Your task to perform on an android device: Do I have any events today? Image 0: 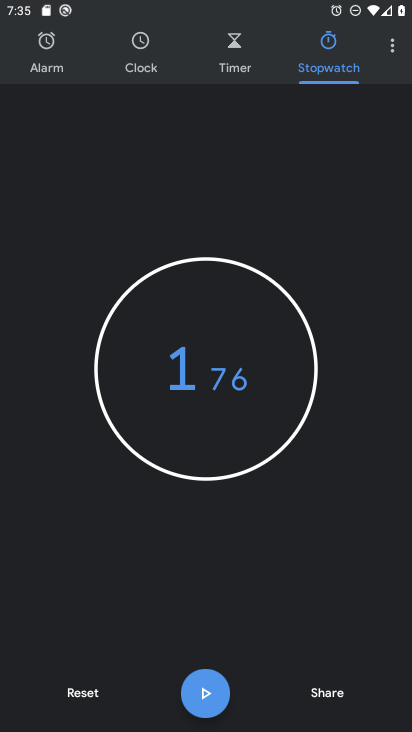
Step 0: press home button
Your task to perform on an android device: Do I have any events today? Image 1: 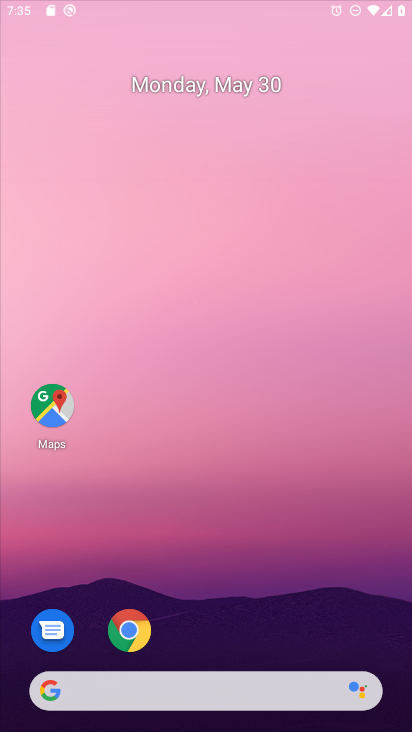
Step 1: drag from (374, 562) to (325, 8)
Your task to perform on an android device: Do I have any events today? Image 2: 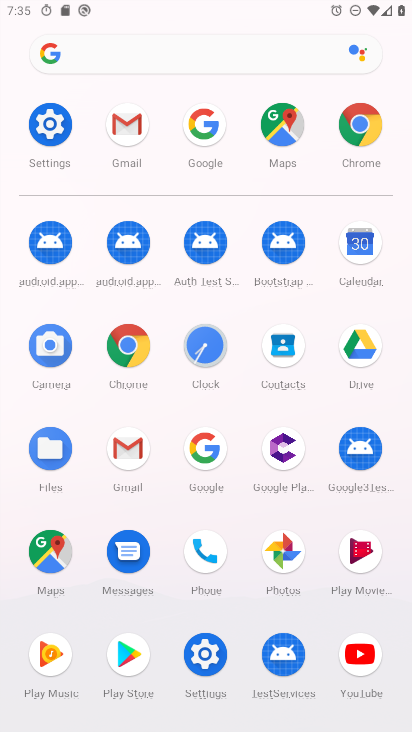
Step 2: click (371, 261)
Your task to perform on an android device: Do I have any events today? Image 3: 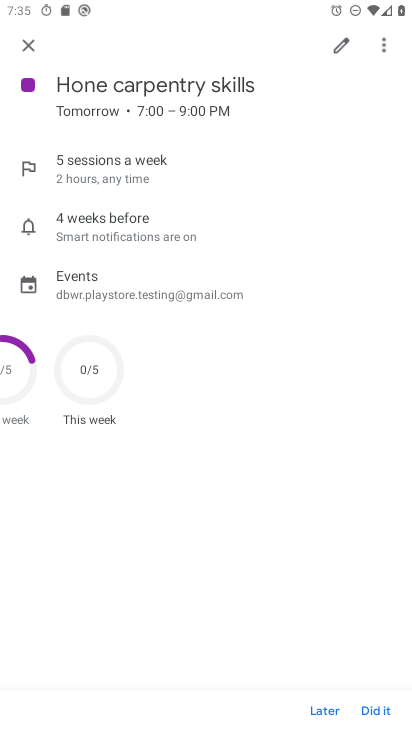
Step 3: press back button
Your task to perform on an android device: Do I have any events today? Image 4: 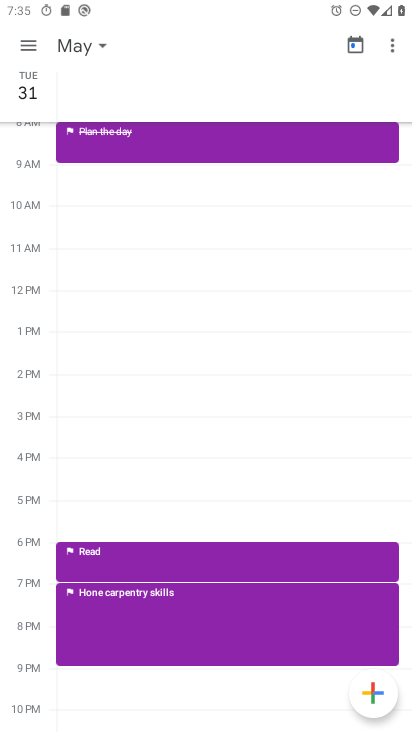
Step 4: click (194, 136)
Your task to perform on an android device: Do I have any events today? Image 5: 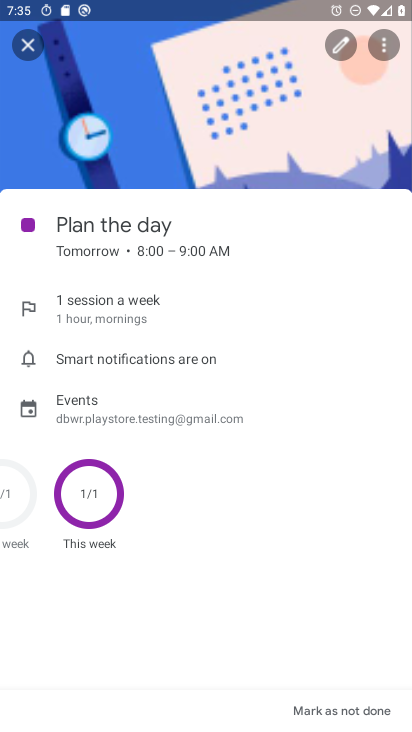
Step 5: task complete